Your task to perform on an android device: What's on my calendar today? Image 0: 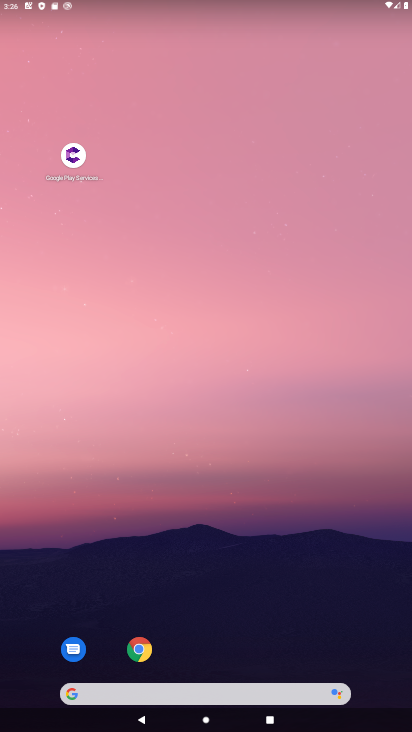
Step 0: drag from (21, 683) to (229, 21)
Your task to perform on an android device: What's on my calendar today? Image 1: 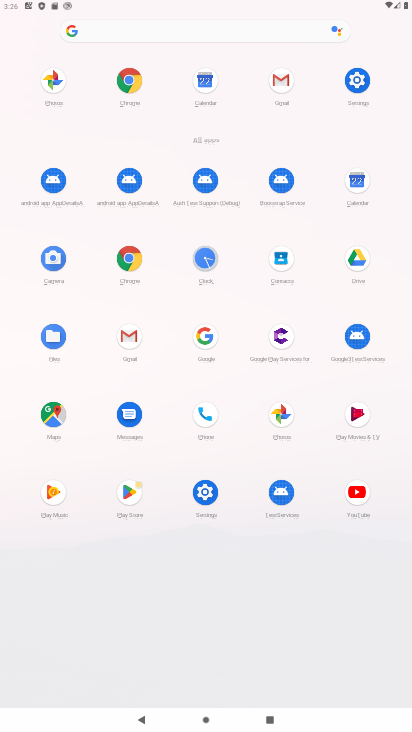
Step 1: click (358, 186)
Your task to perform on an android device: What's on my calendar today? Image 2: 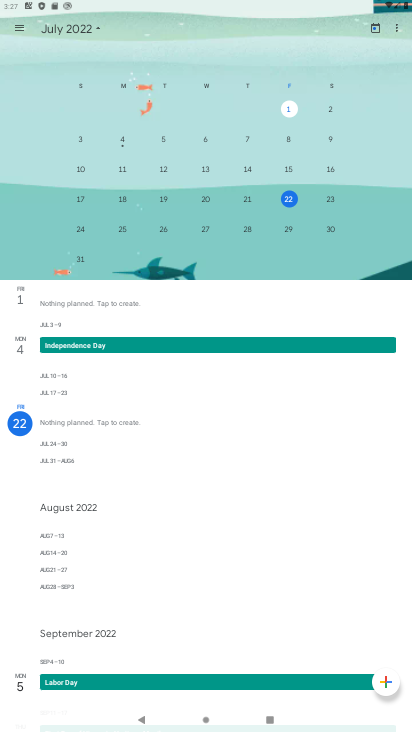
Step 2: task complete